Your task to perform on an android device: allow notifications from all sites in the chrome app Image 0: 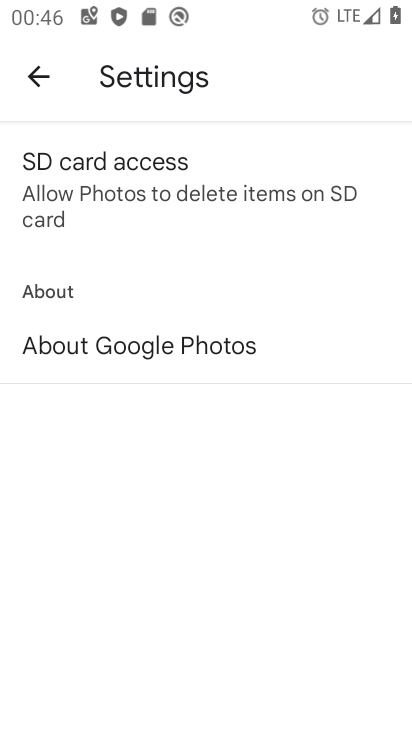
Step 0: press home button
Your task to perform on an android device: allow notifications from all sites in the chrome app Image 1: 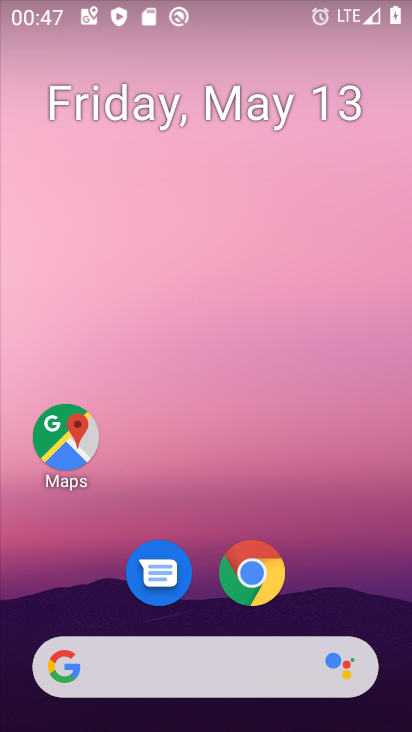
Step 1: click (261, 559)
Your task to perform on an android device: allow notifications from all sites in the chrome app Image 2: 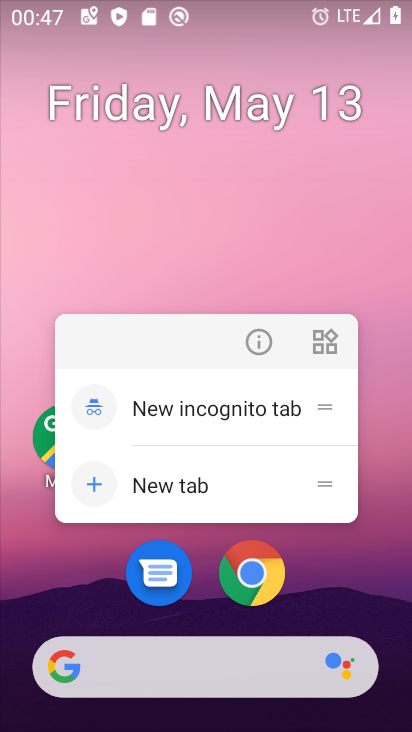
Step 2: click (266, 564)
Your task to perform on an android device: allow notifications from all sites in the chrome app Image 3: 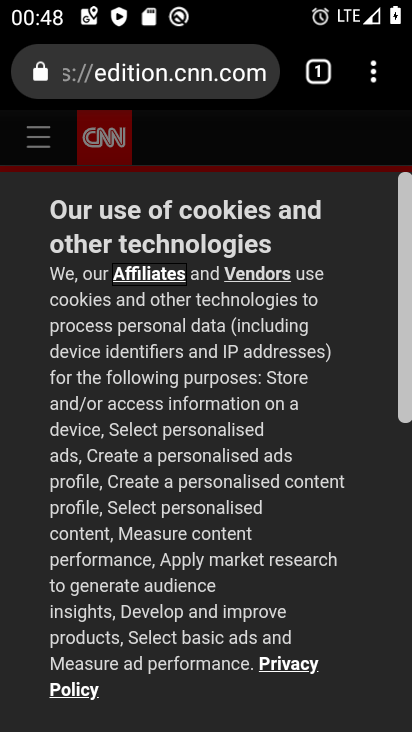
Step 3: click (370, 67)
Your task to perform on an android device: allow notifications from all sites in the chrome app Image 4: 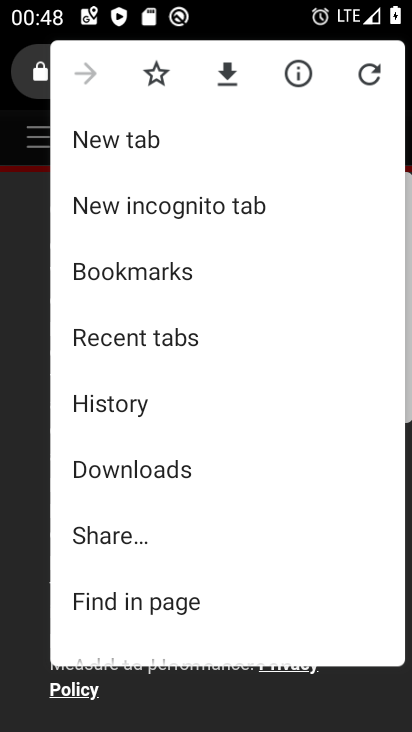
Step 4: drag from (280, 621) to (253, 130)
Your task to perform on an android device: allow notifications from all sites in the chrome app Image 5: 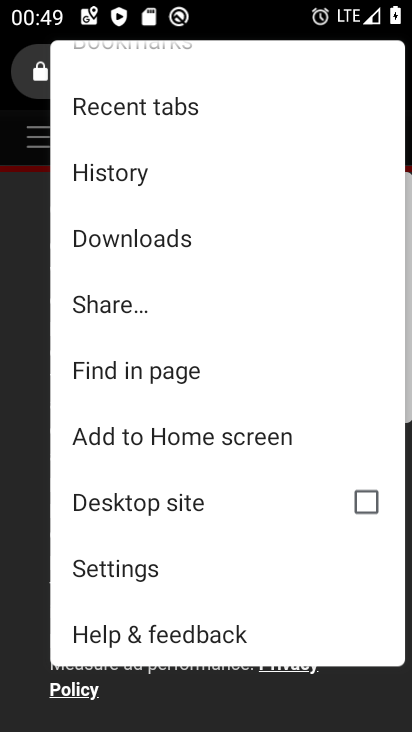
Step 5: click (108, 574)
Your task to perform on an android device: allow notifications from all sites in the chrome app Image 6: 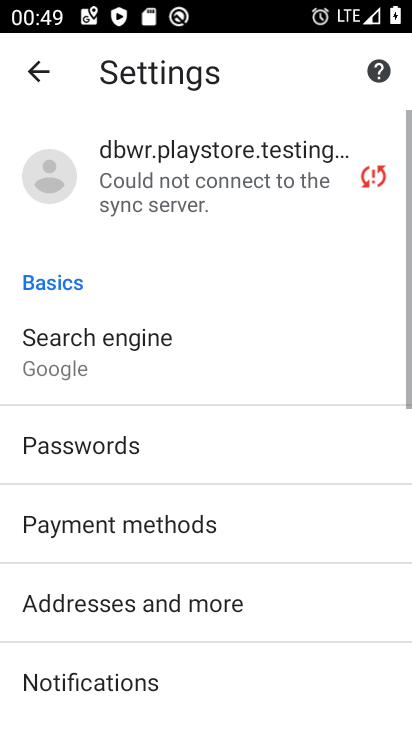
Step 6: drag from (159, 585) to (153, 55)
Your task to perform on an android device: allow notifications from all sites in the chrome app Image 7: 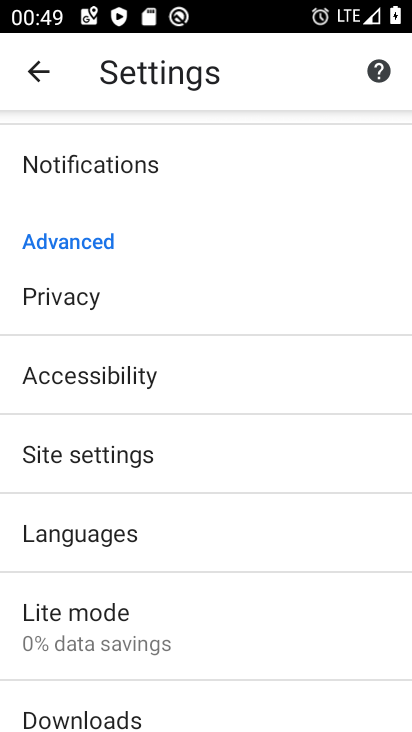
Step 7: click (149, 175)
Your task to perform on an android device: allow notifications from all sites in the chrome app Image 8: 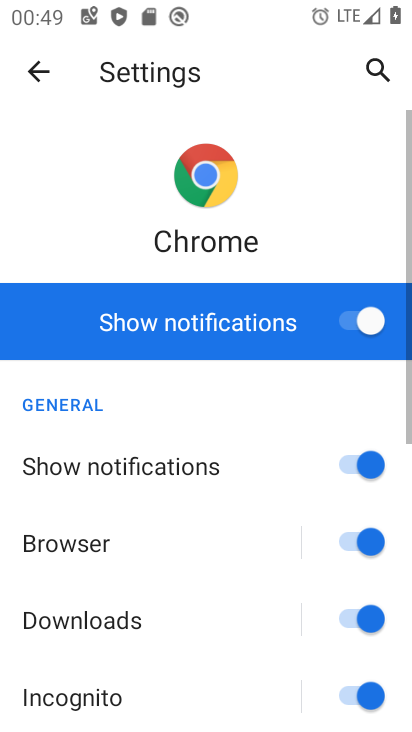
Step 8: task complete